Your task to perform on an android device: Open Google Maps Image 0: 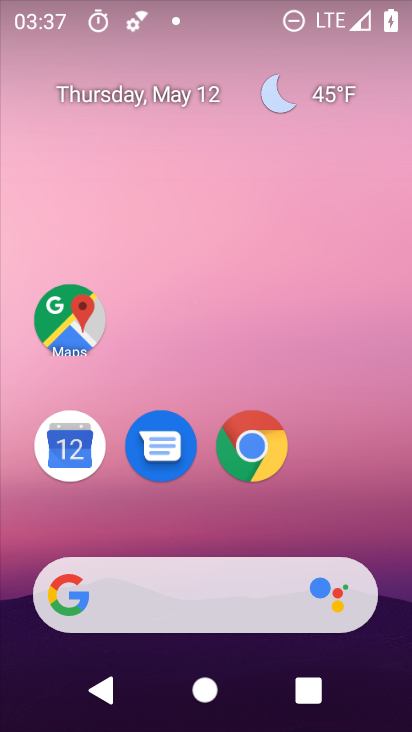
Step 0: drag from (214, 529) to (213, 175)
Your task to perform on an android device: Open Google Maps Image 1: 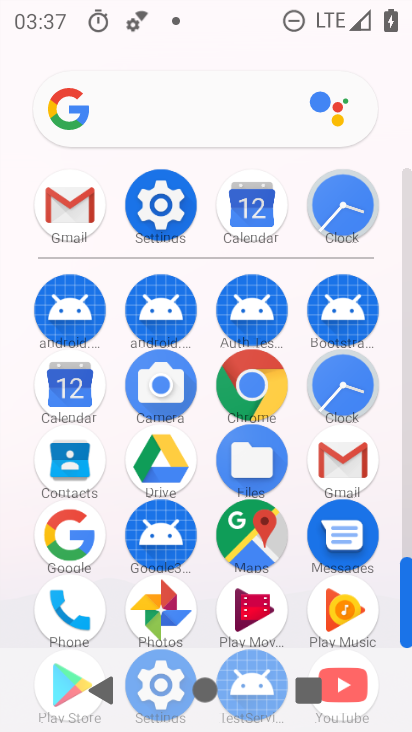
Step 1: click (238, 538)
Your task to perform on an android device: Open Google Maps Image 2: 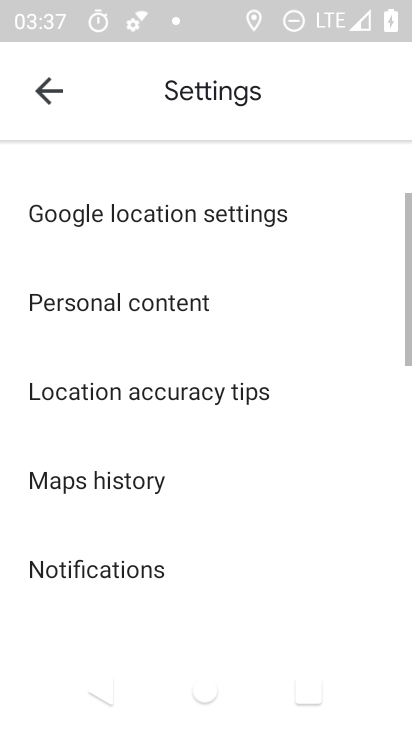
Step 2: click (35, 100)
Your task to perform on an android device: Open Google Maps Image 3: 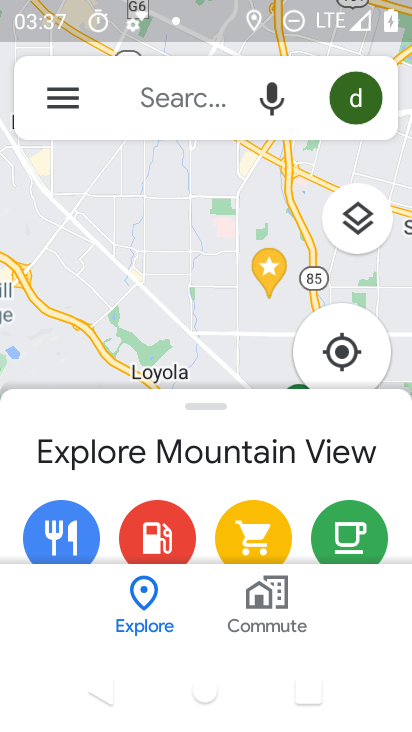
Step 3: task complete